Your task to perform on an android device: Open ESPN.com Image 0: 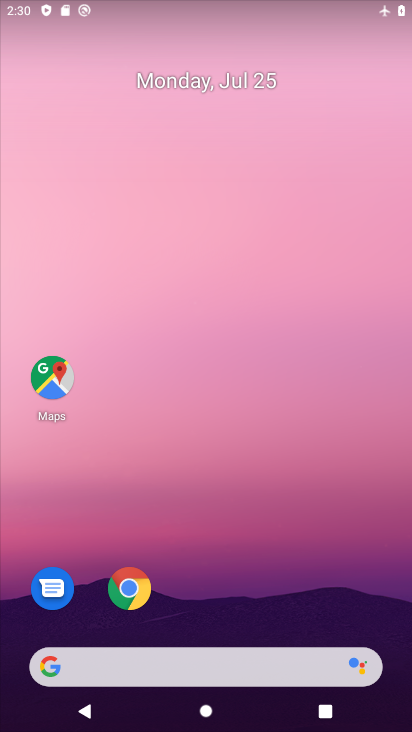
Step 0: drag from (326, 593) to (331, 21)
Your task to perform on an android device: Open ESPN.com Image 1: 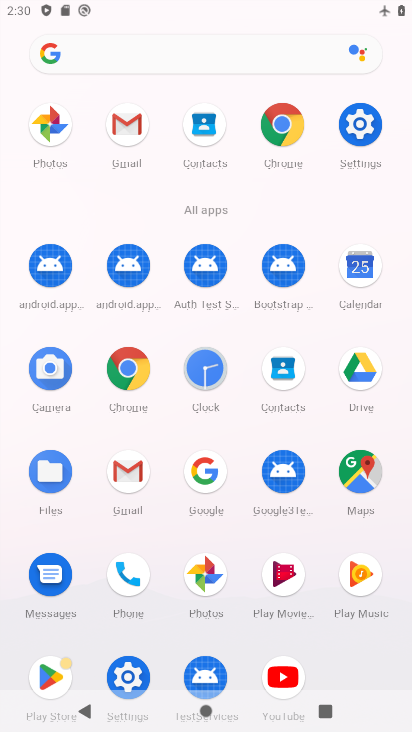
Step 1: click (278, 128)
Your task to perform on an android device: Open ESPN.com Image 2: 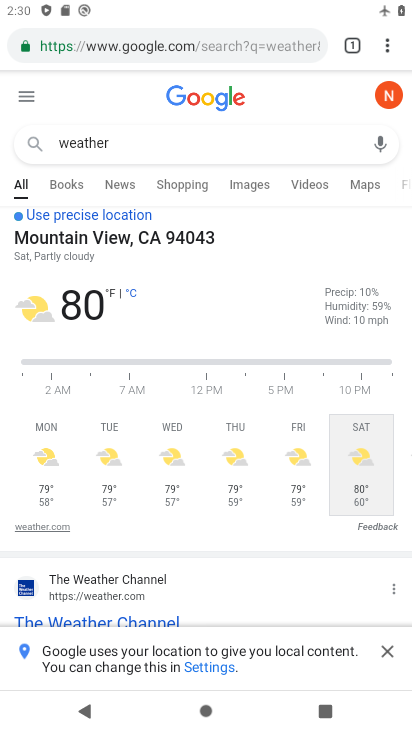
Step 2: click (266, 148)
Your task to perform on an android device: Open ESPN.com Image 3: 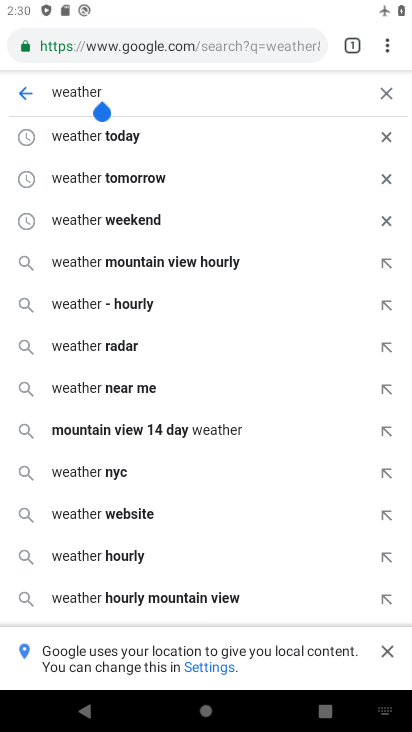
Step 3: click (387, 90)
Your task to perform on an android device: Open ESPN.com Image 4: 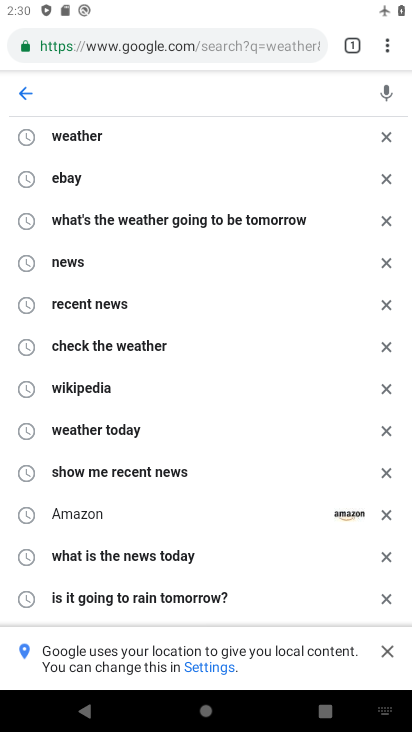
Step 4: type "espn.com"
Your task to perform on an android device: Open ESPN.com Image 5: 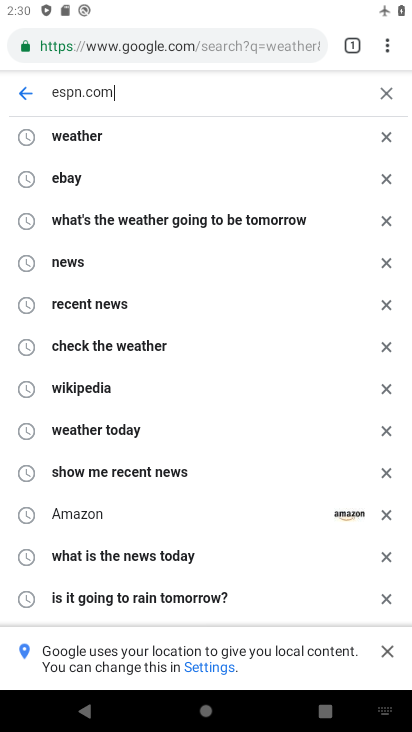
Step 5: press enter
Your task to perform on an android device: Open ESPN.com Image 6: 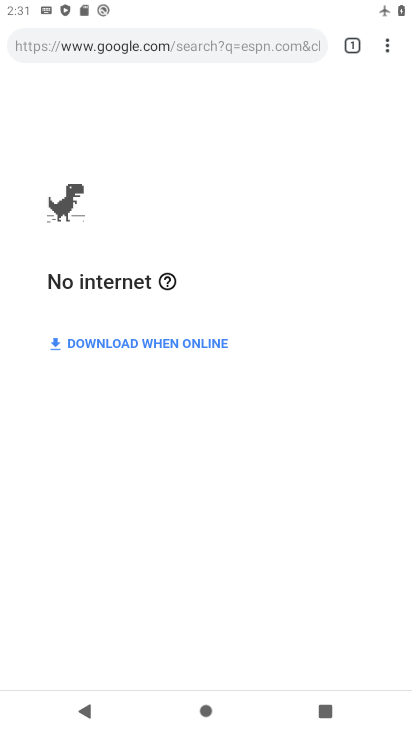
Step 6: click (212, 43)
Your task to perform on an android device: Open ESPN.com Image 7: 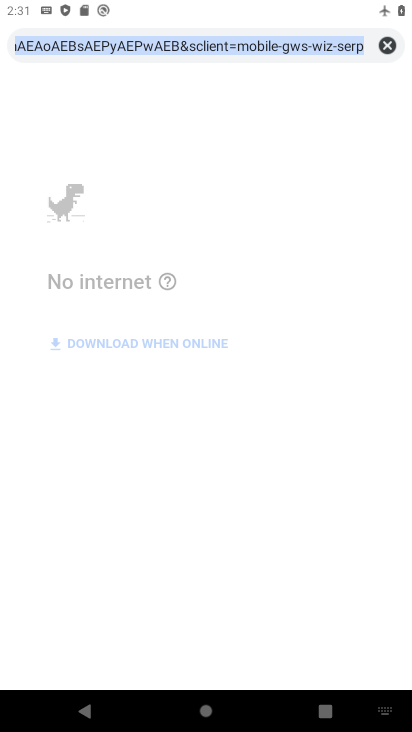
Step 7: type "espn.com"
Your task to perform on an android device: Open ESPN.com Image 8: 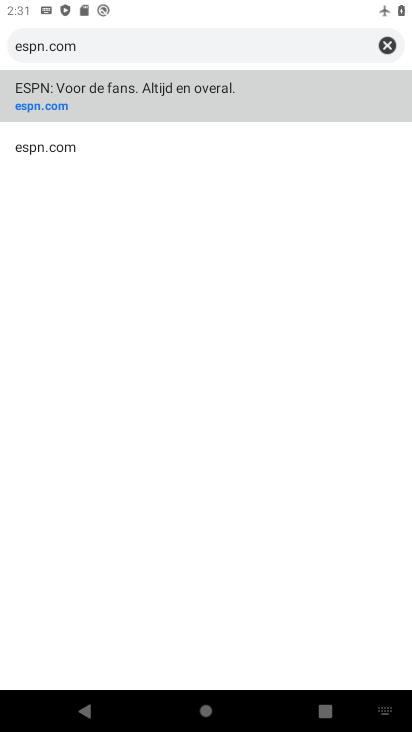
Step 8: click (65, 84)
Your task to perform on an android device: Open ESPN.com Image 9: 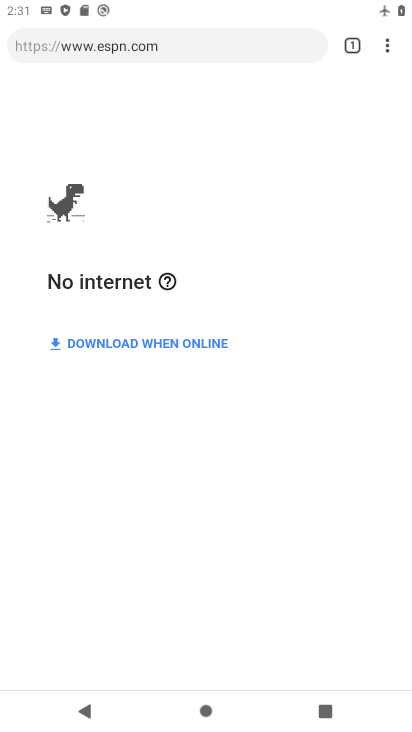
Step 9: task complete